Your task to perform on an android device: Open internet settings Image 0: 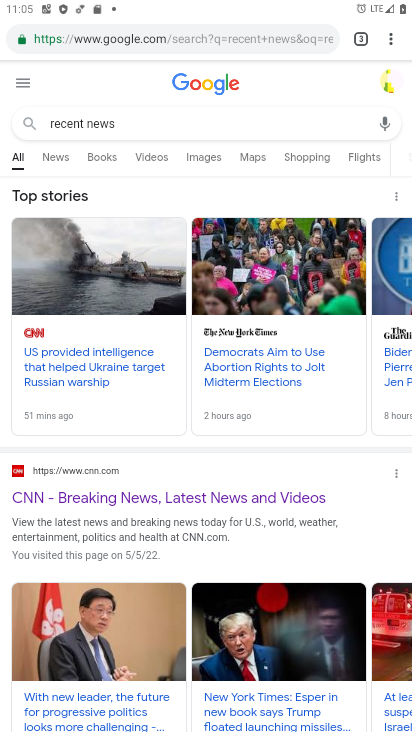
Step 0: press home button
Your task to perform on an android device: Open internet settings Image 1: 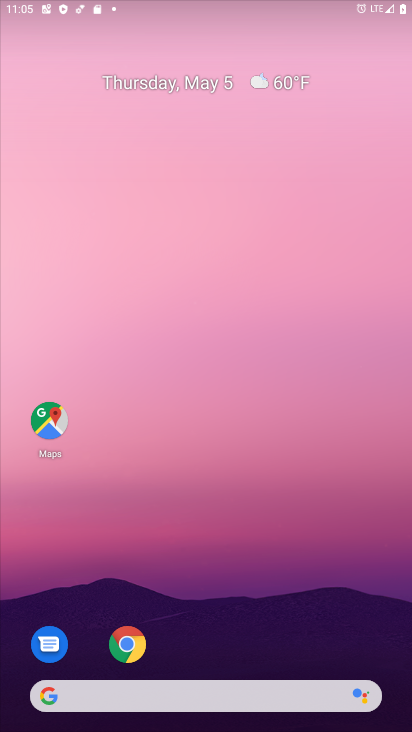
Step 1: drag from (220, 542) to (231, 71)
Your task to perform on an android device: Open internet settings Image 2: 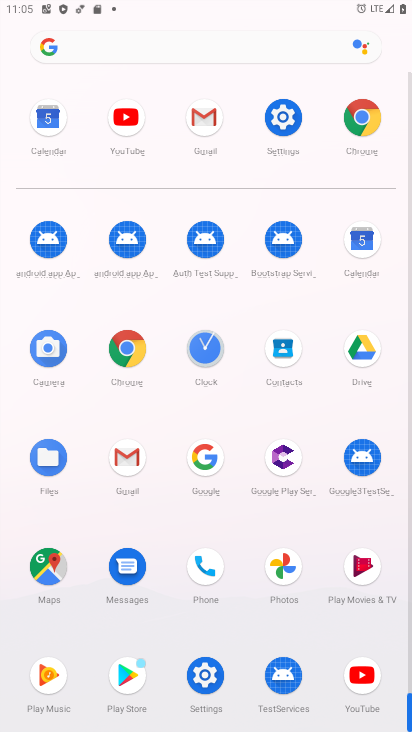
Step 2: click (289, 130)
Your task to perform on an android device: Open internet settings Image 3: 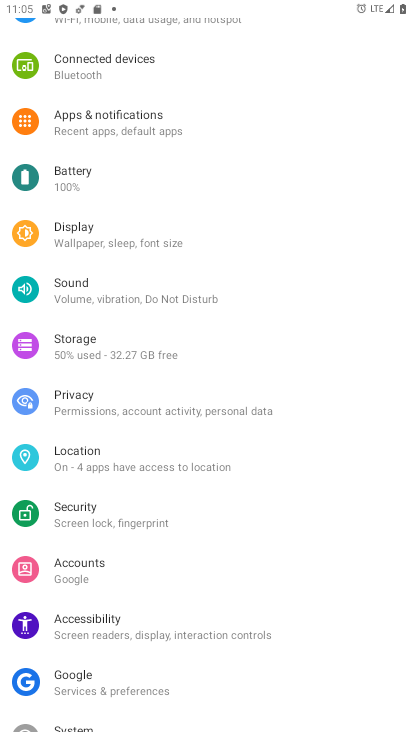
Step 3: drag from (168, 65) to (175, 457)
Your task to perform on an android device: Open internet settings Image 4: 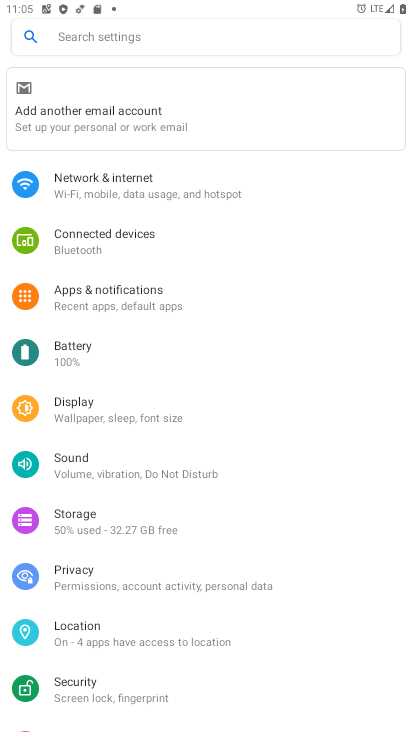
Step 4: click (169, 195)
Your task to perform on an android device: Open internet settings Image 5: 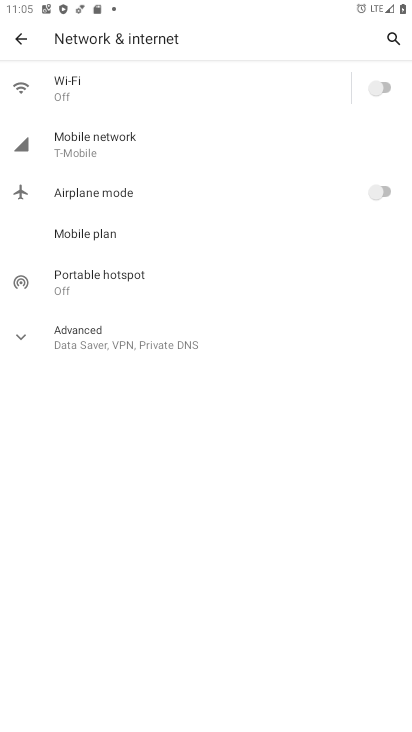
Step 5: task complete